Your task to perform on an android device: When is my next appointment? Image 0: 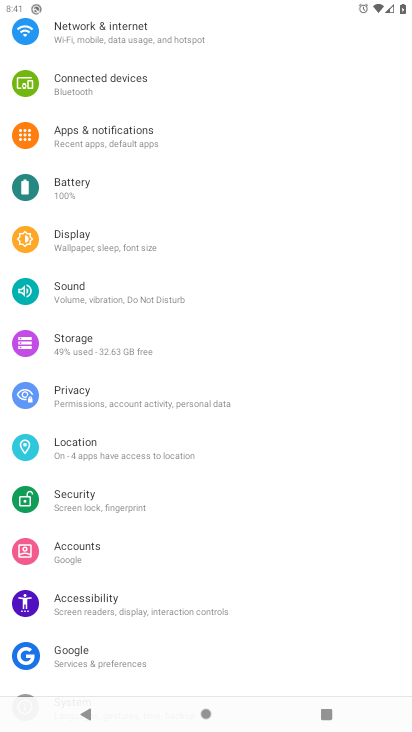
Step 0: press home button
Your task to perform on an android device: When is my next appointment? Image 1: 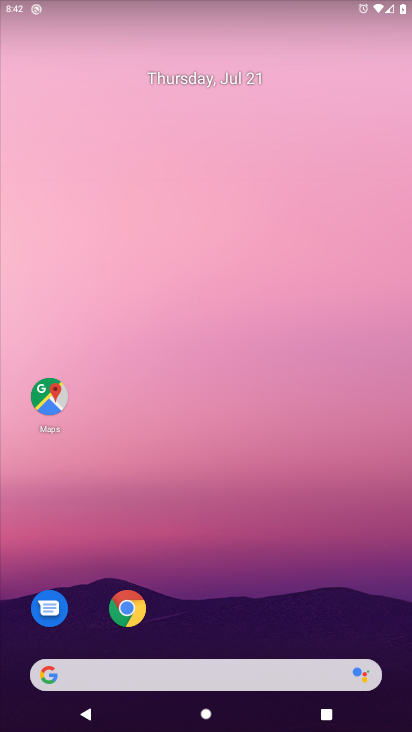
Step 1: drag from (203, 400) to (279, 255)
Your task to perform on an android device: When is my next appointment? Image 2: 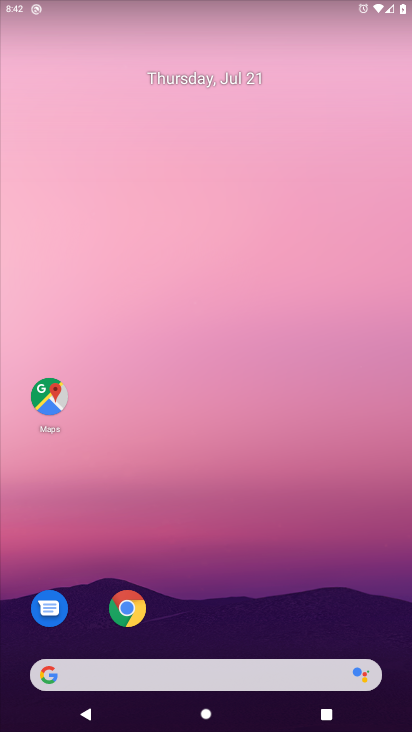
Step 2: drag from (35, 691) to (139, 164)
Your task to perform on an android device: When is my next appointment? Image 3: 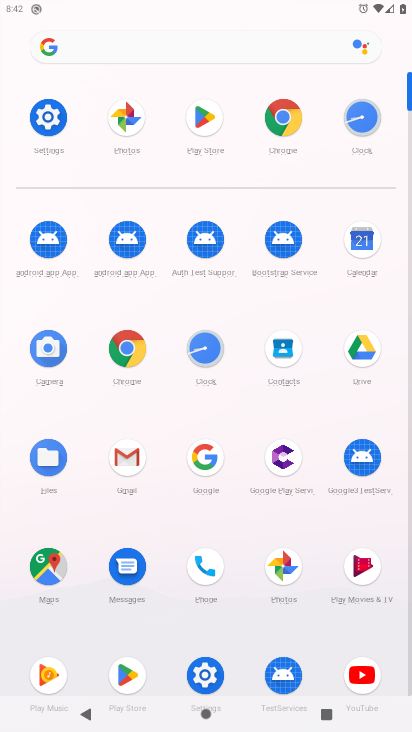
Step 3: click (363, 254)
Your task to perform on an android device: When is my next appointment? Image 4: 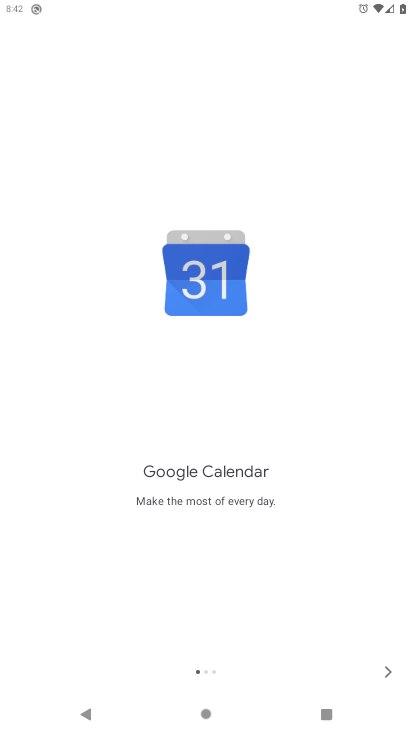
Step 4: click (380, 673)
Your task to perform on an android device: When is my next appointment? Image 5: 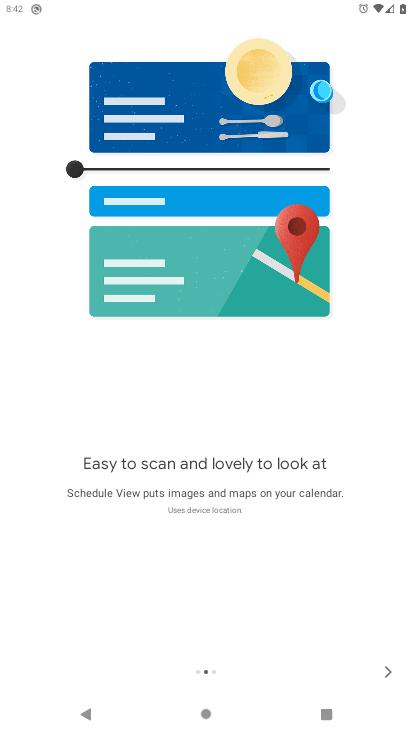
Step 5: click (391, 664)
Your task to perform on an android device: When is my next appointment? Image 6: 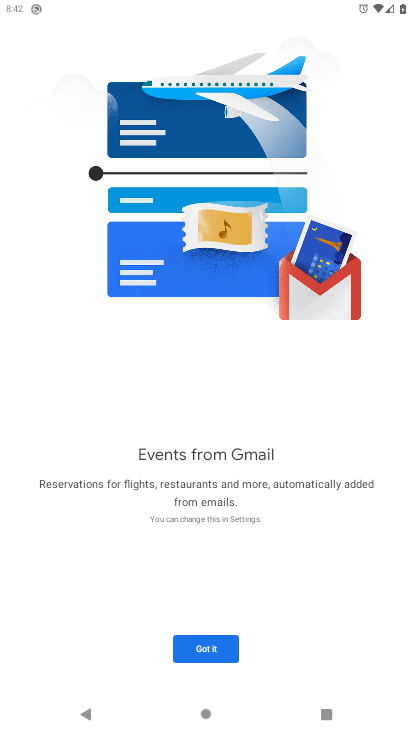
Step 6: click (212, 650)
Your task to perform on an android device: When is my next appointment? Image 7: 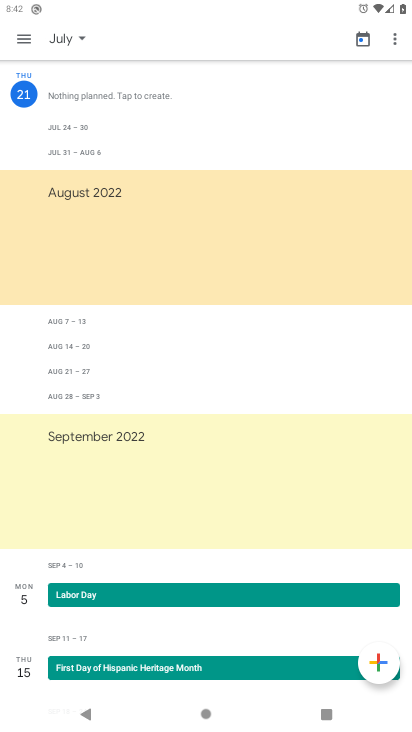
Step 7: click (73, 42)
Your task to perform on an android device: When is my next appointment? Image 8: 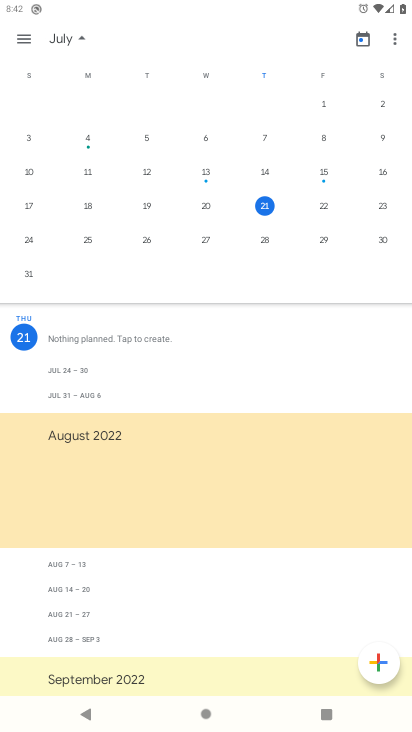
Step 8: task complete